Your task to perform on an android device: make emails show in primary in the gmail app Image 0: 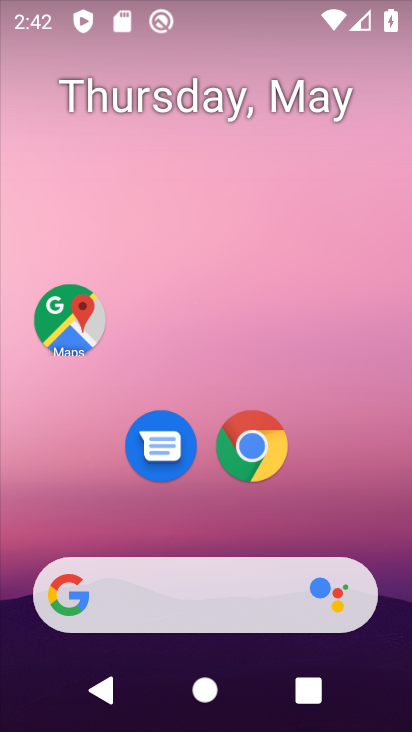
Step 0: drag from (363, 502) to (341, 41)
Your task to perform on an android device: make emails show in primary in the gmail app Image 1: 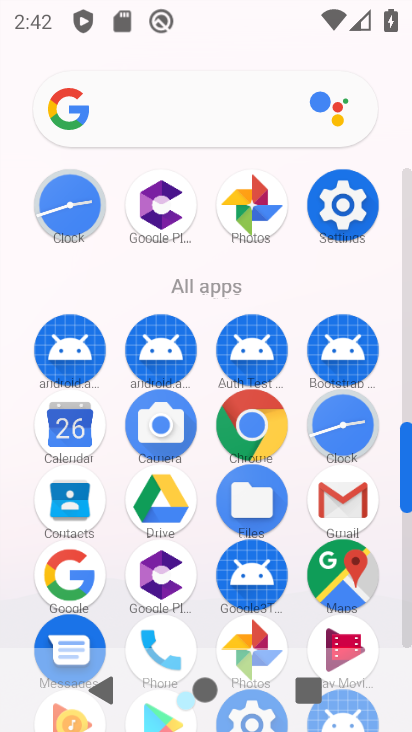
Step 1: click (343, 496)
Your task to perform on an android device: make emails show in primary in the gmail app Image 2: 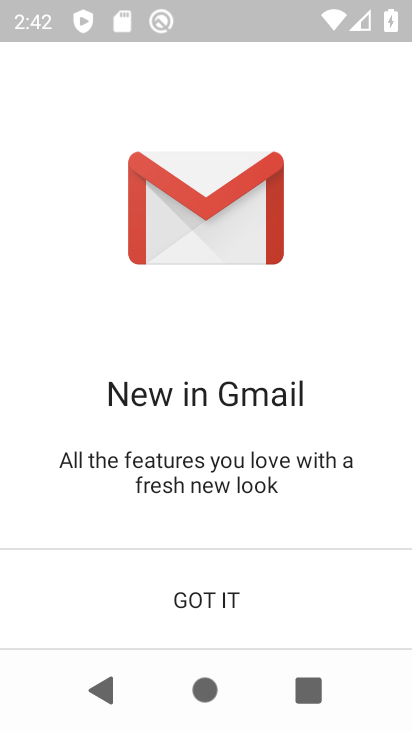
Step 2: click (203, 604)
Your task to perform on an android device: make emails show in primary in the gmail app Image 3: 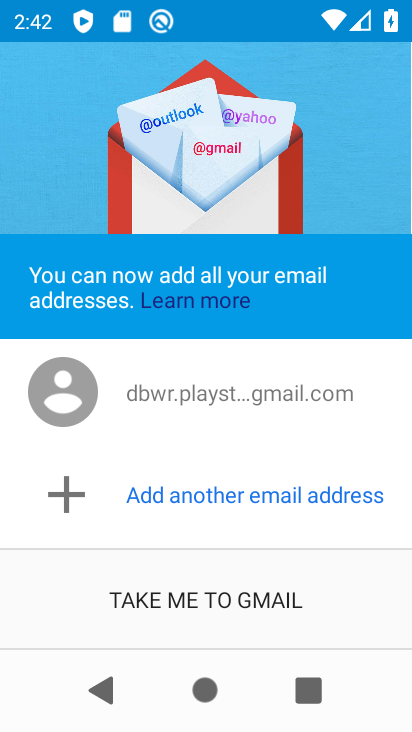
Step 3: click (203, 604)
Your task to perform on an android device: make emails show in primary in the gmail app Image 4: 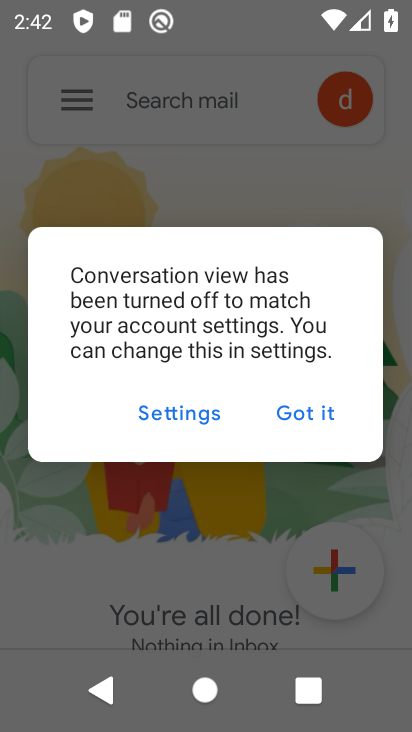
Step 4: click (320, 414)
Your task to perform on an android device: make emails show in primary in the gmail app Image 5: 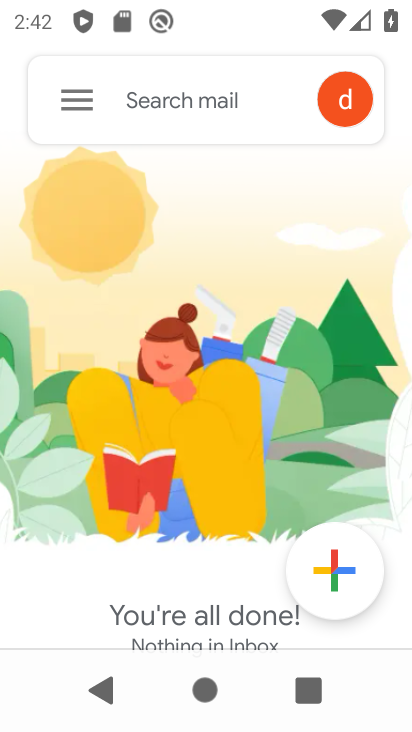
Step 5: click (72, 103)
Your task to perform on an android device: make emails show in primary in the gmail app Image 6: 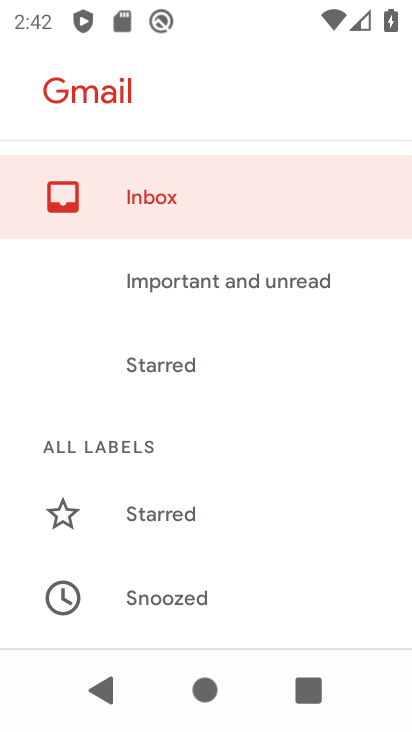
Step 6: drag from (212, 548) to (202, 209)
Your task to perform on an android device: make emails show in primary in the gmail app Image 7: 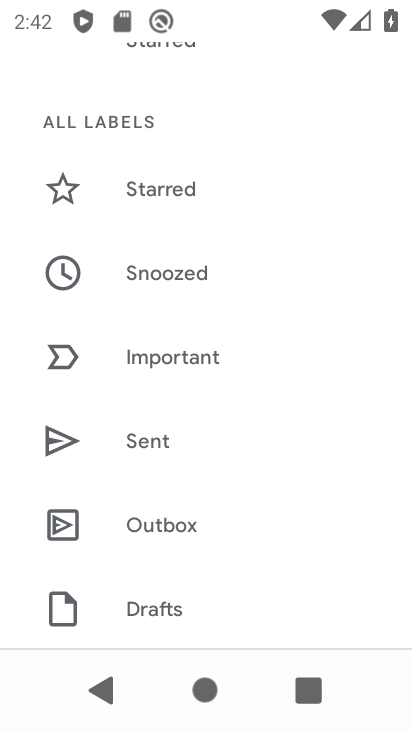
Step 7: drag from (203, 521) to (173, 158)
Your task to perform on an android device: make emails show in primary in the gmail app Image 8: 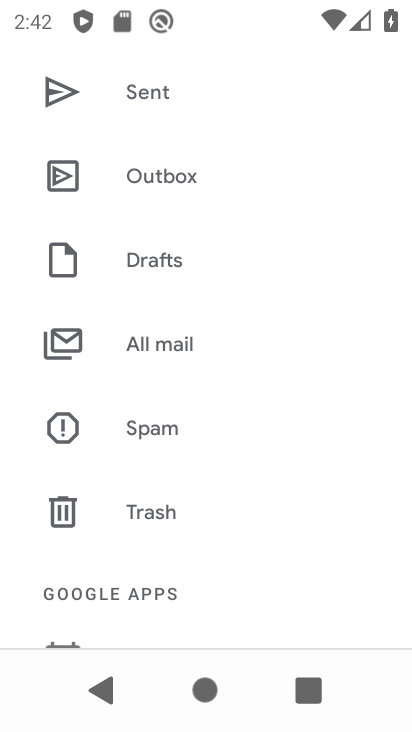
Step 8: drag from (170, 553) to (135, 86)
Your task to perform on an android device: make emails show in primary in the gmail app Image 9: 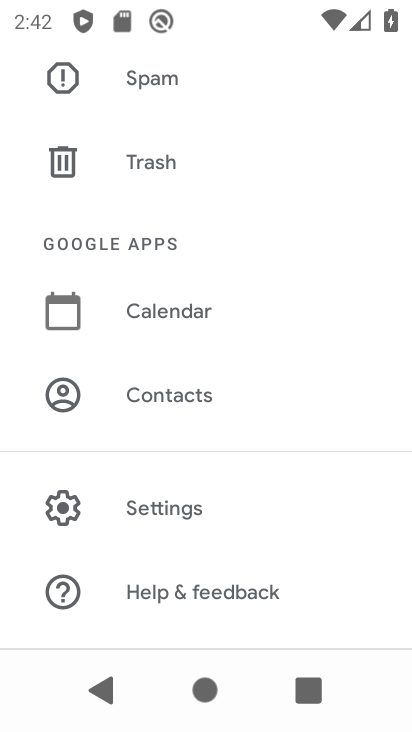
Step 9: click (135, 497)
Your task to perform on an android device: make emails show in primary in the gmail app Image 10: 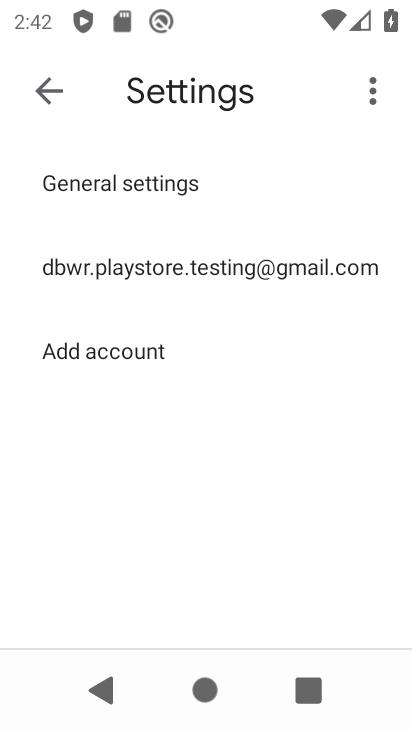
Step 10: click (126, 274)
Your task to perform on an android device: make emails show in primary in the gmail app Image 11: 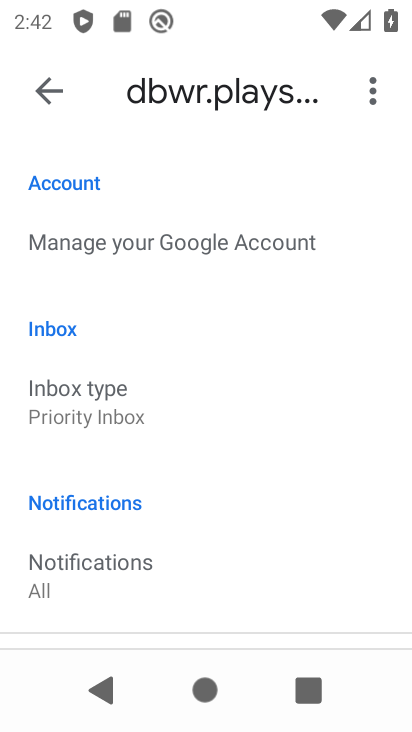
Step 11: task complete